Your task to perform on an android device: open app "Walmart Shopping & Grocery" (install if not already installed) and go to login screen Image 0: 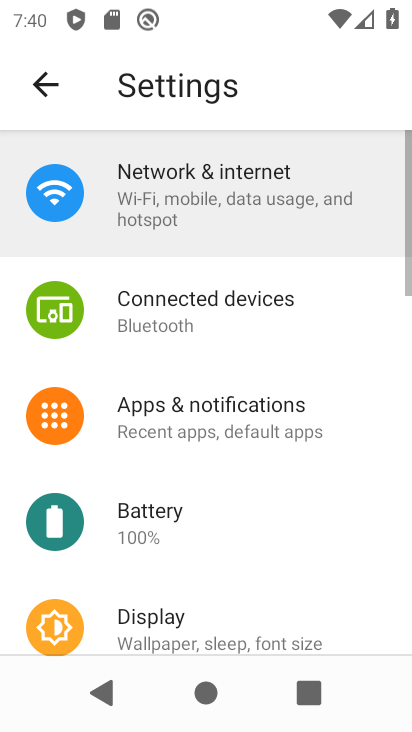
Step 0: press home button
Your task to perform on an android device: open app "Walmart Shopping & Grocery" (install if not already installed) and go to login screen Image 1: 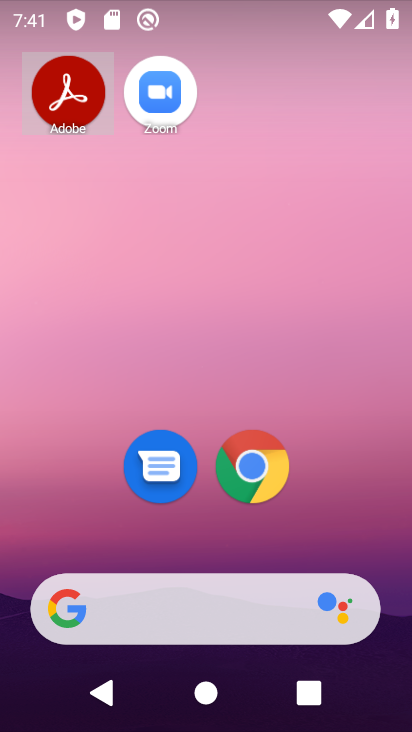
Step 1: drag from (216, 611) to (224, 185)
Your task to perform on an android device: open app "Walmart Shopping & Grocery" (install if not already installed) and go to login screen Image 2: 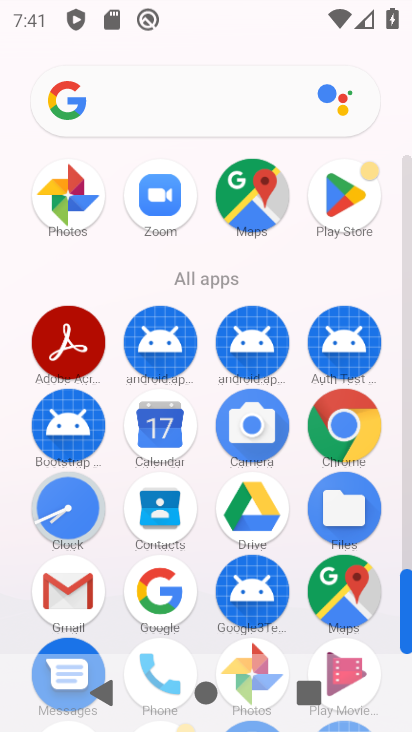
Step 2: click (345, 199)
Your task to perform on an android device: open app "Walmart Shopping & Grocery" (install if not already installed) and go to login screen Image 3: 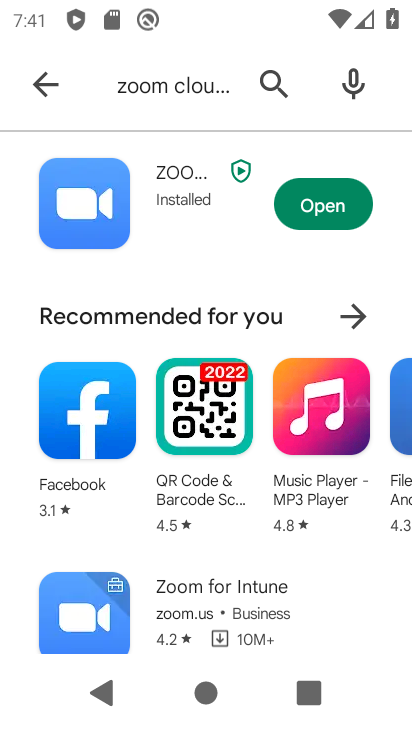
Step 3: press back button
Your task to perform on an android device: open app "Walmart Shopping & Grocery" (install if not already installed) and go to login screen Image 4: 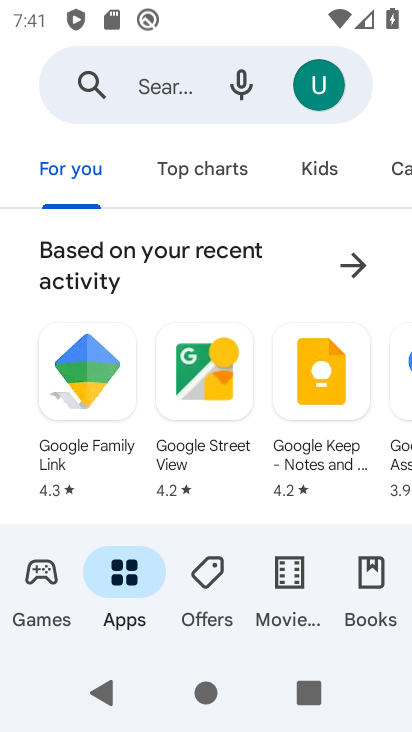
Step 4: click (175, 78)
Your task to perform on an android device: open app "Walmart Shopping & Grocery" (install if not already installed) and go to login screen Image 5: 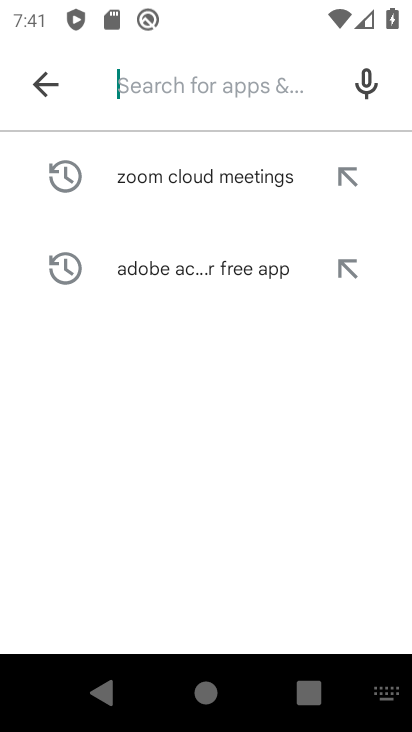
Step 5: type "Walmart Shopping & Grocery"
Your task to perform on an android device: open app "Walmart Shopping & Grocery" (install if not already installed) and go to login screen Image 6: 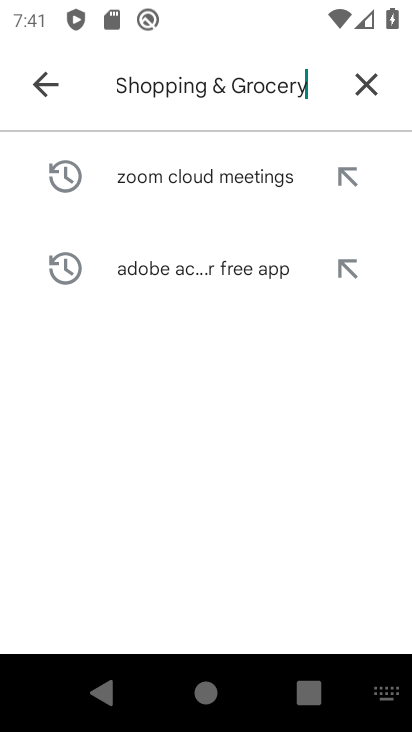
Step 6: type ""
Your task to perform on an android device: open app "Walmart Shopping & Grocery" (install if not already installed) and go to login screen Image 7: 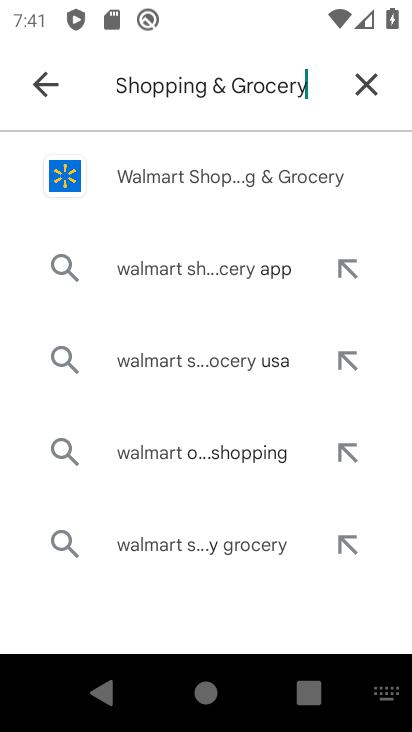
Step 7: click (235, 174)
Your task to perform on an android device: open app "Walmart Shopping & Grocery" (install if not already installed) and go to login screen Image 8: 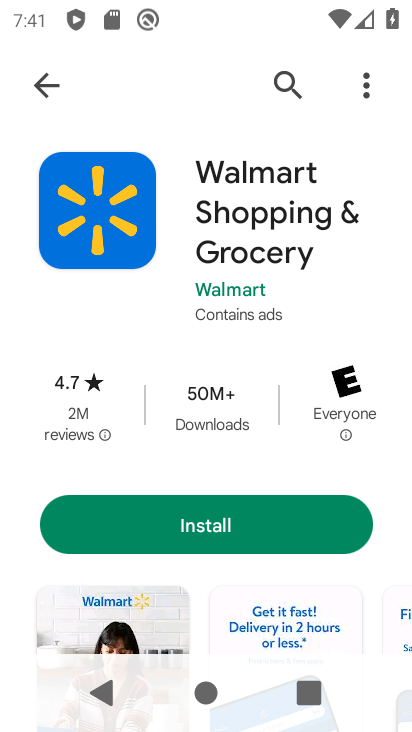
Step 8: click (216, 519)
Your task to perform on an android device: open app "Walmart Shopping & Grocery" (install if not already installed) and go to login screen Image 9: 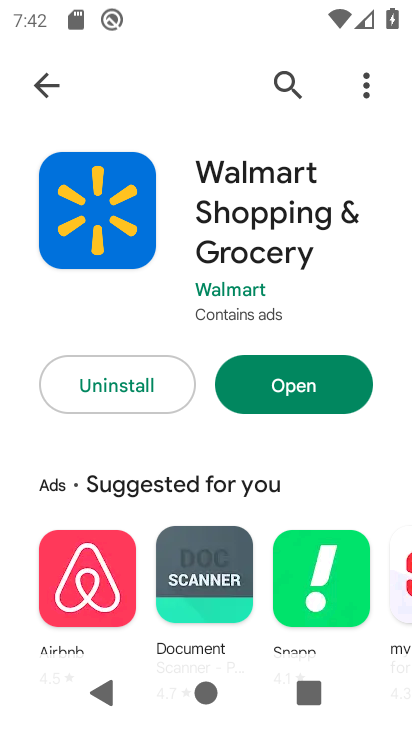
Step 9: click (309, 390)
Your task to perform on an android device: open app "Walmart Shopping & Grocery" (install if not already installed) and go to login screen Image 10: 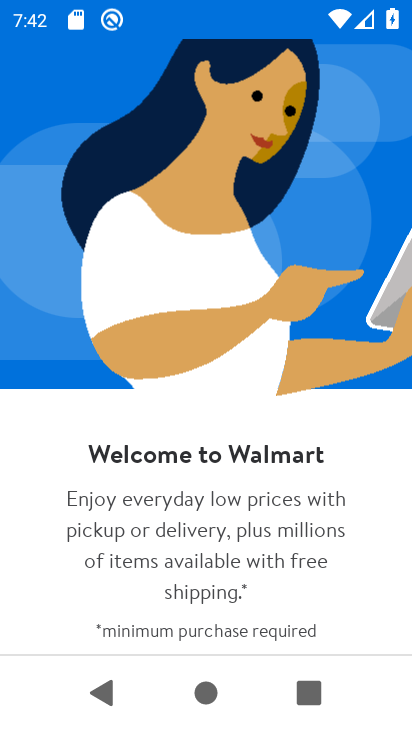
Step 10: drag from (277, 590) to (277, 328)
Your task to perform on an android device: open app "Walmart Shopping & Grocery" (install if not already installed) and go to login screen Image 11: 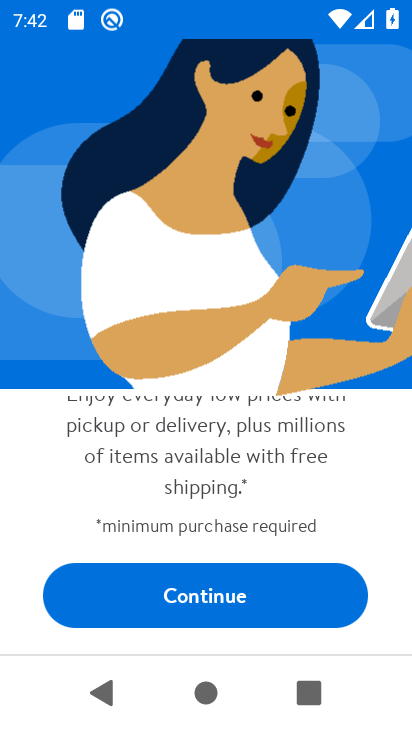
Step 11: click (195, 601)
Your task to perform on an android device: open app "Walmart Shopping & Grocery" (install if not already installed) and go to login screen Image 12: 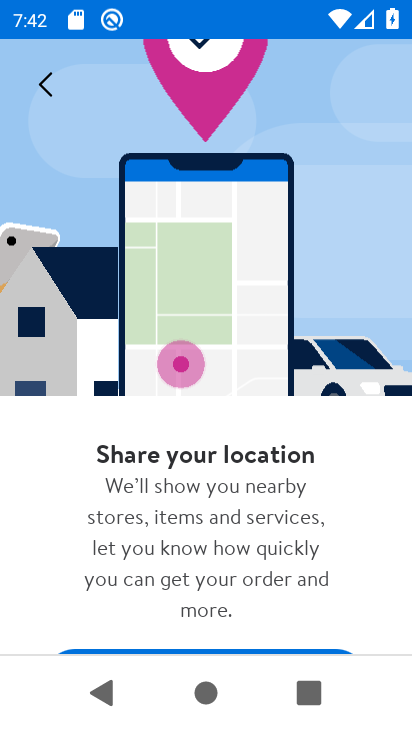
Step 12: drag from (277, 614) to (332, 296)
Your task to perform on an android device: open app "Walmart Shopping & Grocery" (install if not already installed) and go to login screen Image 13: 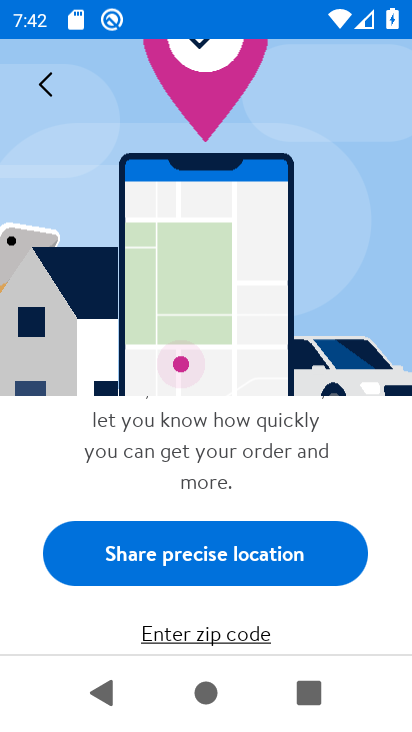
Step 13: drag from (255, 603) to (300, 384)
Your task to perform on an android device: open app "Walmart Shopping & Grocery" (install if not already installed) and go to login screen Image 14: 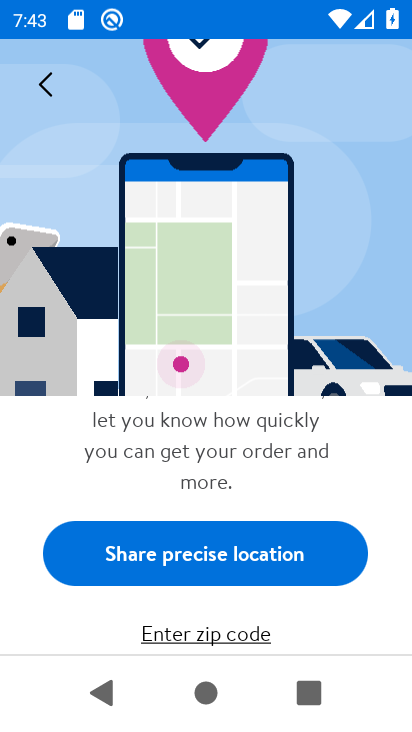
Step 14: click (213, 554)
Your task to perform on an android device: open app "Walmart Shopping & Grocery" (install if not already installed) and go to login screen Image 15: 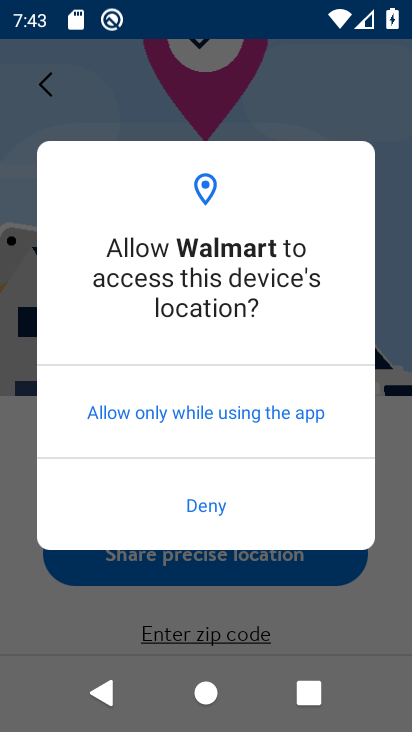
Step 15: click (229, 418)
Your task to perform on an android device: open app "Walmart Shopping & Grocery" (install if not already installed) and go to login screen Image 16: 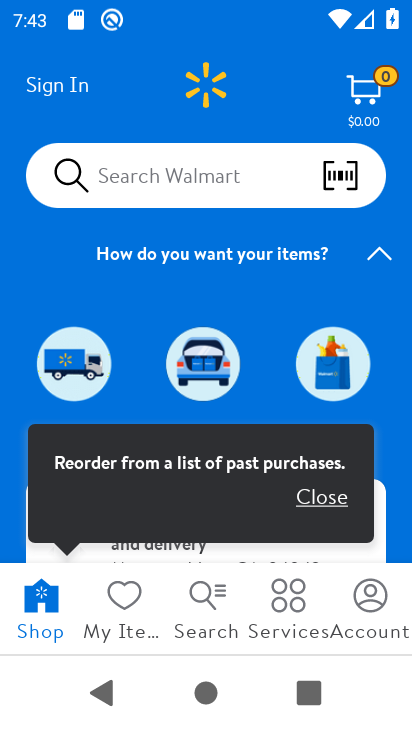
Step 16: click (83, 92)
Your task to perform on an android device: open app "Walmart Shopping & Grocery" (install if not already installed) and go to login screen Image 17: 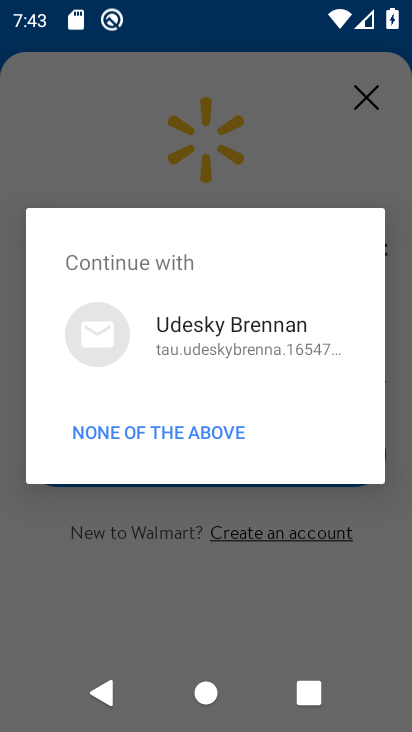
Step 17: task complete